Your task to perform on an android device: install app "eBay: The shopping marketplace" Image 0: 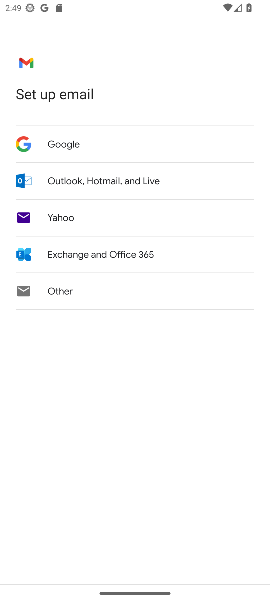
Step 0: press home button
Your task to perform on an android device: install app "eBay: The shopping marketplace" Image 1: 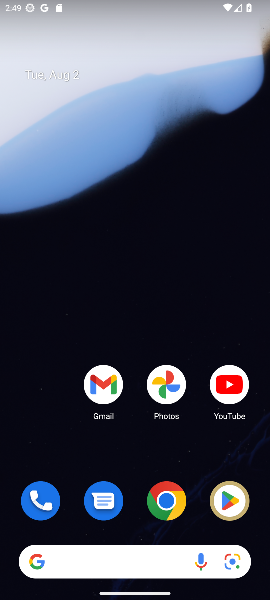
Step 1: click (226, 498)
Your task to perform on an android device: install app "eBay: The shopping marketplace" Image 2: 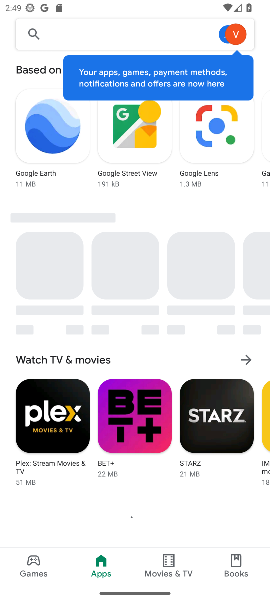
Step 2: click (50, 36)
Your task to perform on an android device: install app "eBay: The shopping marketplace" Image 3: 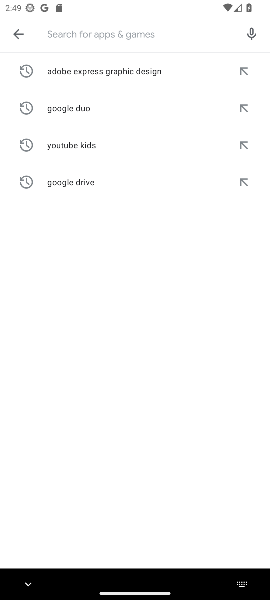
Step 3: type "eBay: The shopping marketplace"
Your task to perform on an android device: install app "eBay: The shopping marketplace" Image 4: 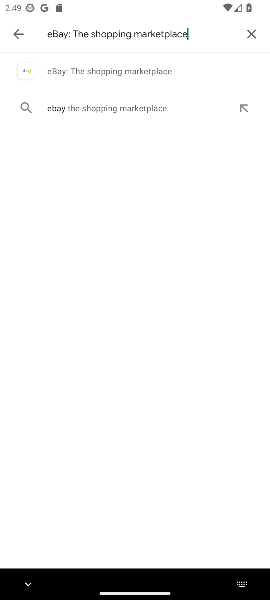
Step 4: click (81, 75)
Your task to perform on an android device: install app "eBay: The shopping marketplace" Image 5: 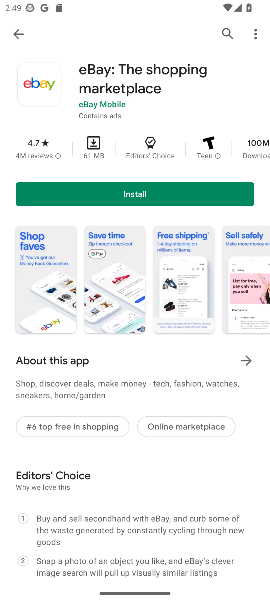
Step 5: click (112, 187)
Your task to perform on an android device: install app "eBay: The shopping marketplace" Image 6: 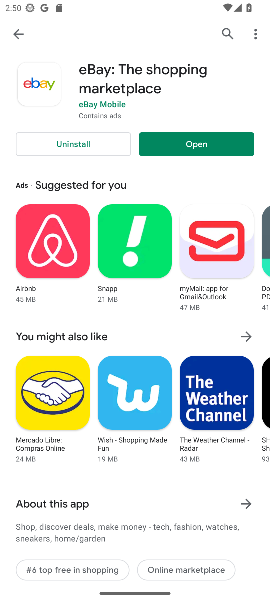
Step 6: task complete